Your task to perform on an android device: Go to notification settings Image 0: 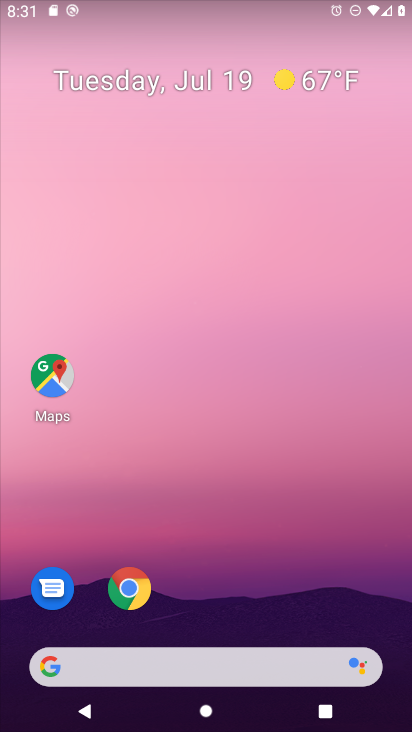
Step 0: drag from (321, 626) to (321, 157)
Your task to perform on an android device: Go to notification settings Image 1: 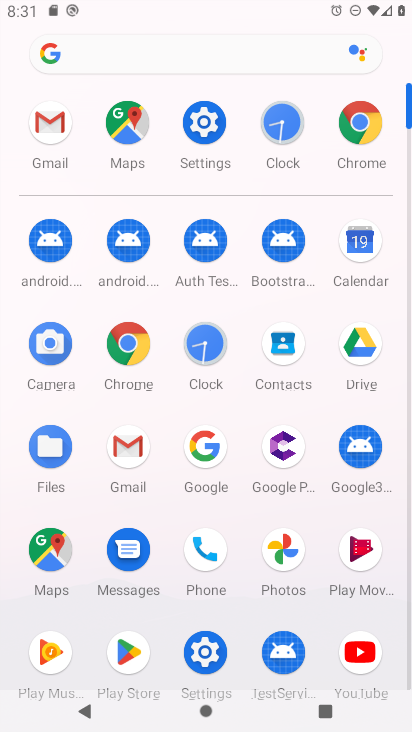
Step 1: click (214, 131)
Your task to perform on an android device: Go to notification settings Image 2: 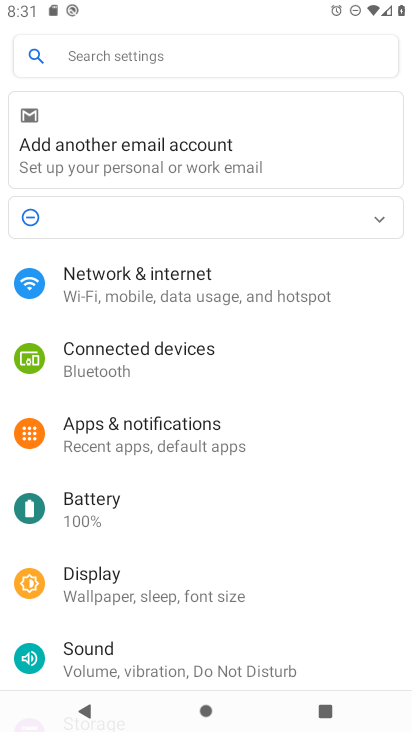
Step 2: drag from (335, 423) to (345, 345)
Your task to perform on an android device: Go to notification settings Image 3: 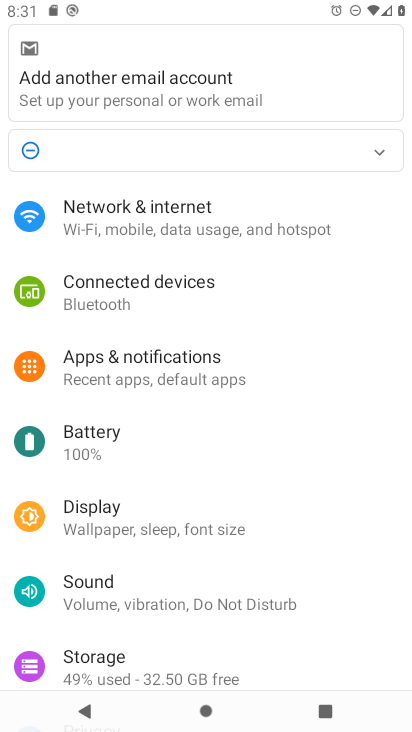
Step 3: drag from (353, 480) to (351, 395)
Your task to perform on an android device: Go to notification settings Image 4: 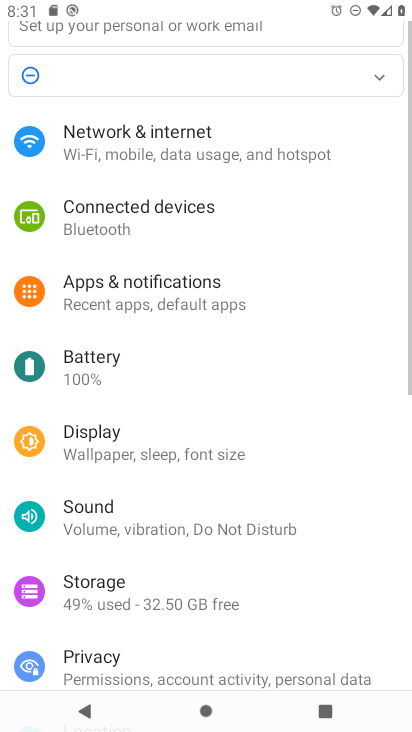
Step 4: drag from (342, 523) to (341, 422)
Your task to perform on an android device: Go to notification settings Image 5: 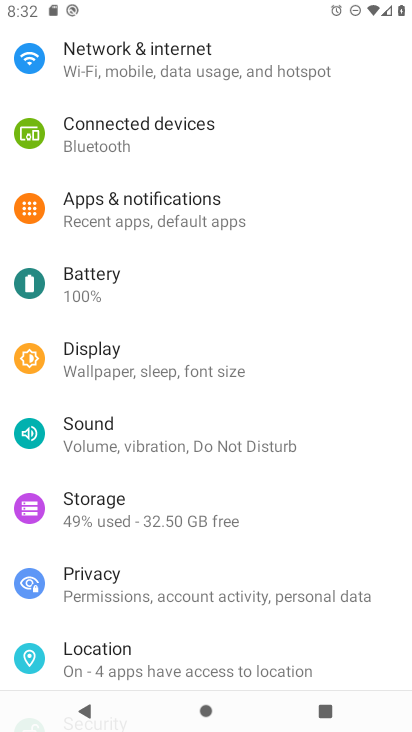
Step 5: drag from (336, 512) to (341, 419)
Your task to perform on an android device: Go to notification settings Image 6: 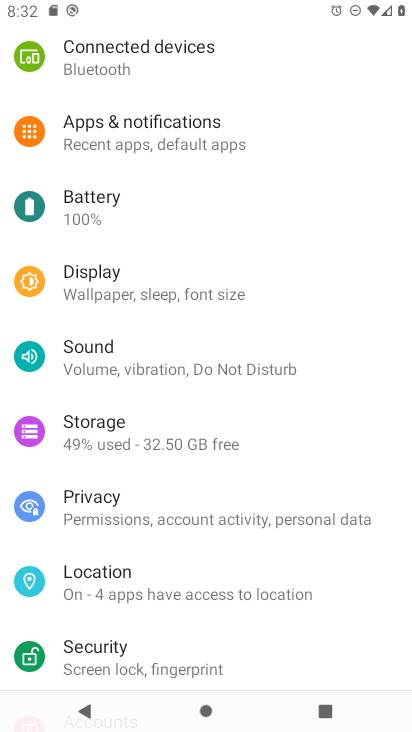
Step 6: drag from (343, 562) to (348, 442)
Your task to perform on an android device: Go to notification settings Image 7: 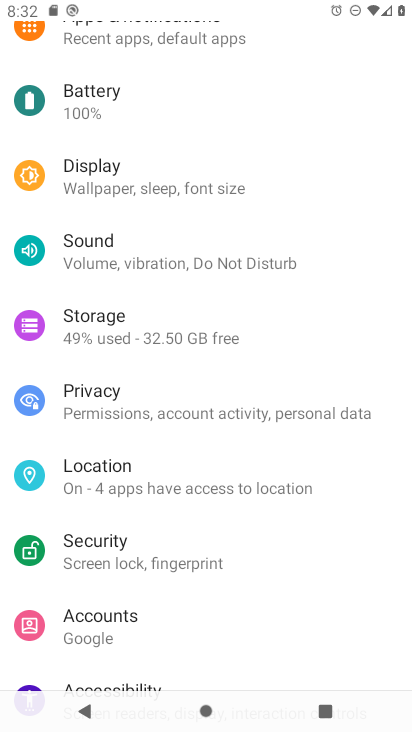
Step 7: drag from (336, 564) to (339, 458)
Your task to perform on an android device: Go to notification settings Image 8: 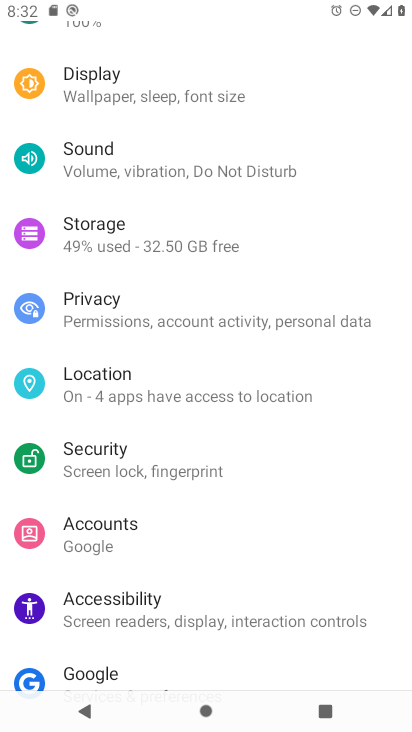
Step 8: drag from (364, 254) to (363, 369)
Your task to perform on an android device: Go to notification settings Image 9: 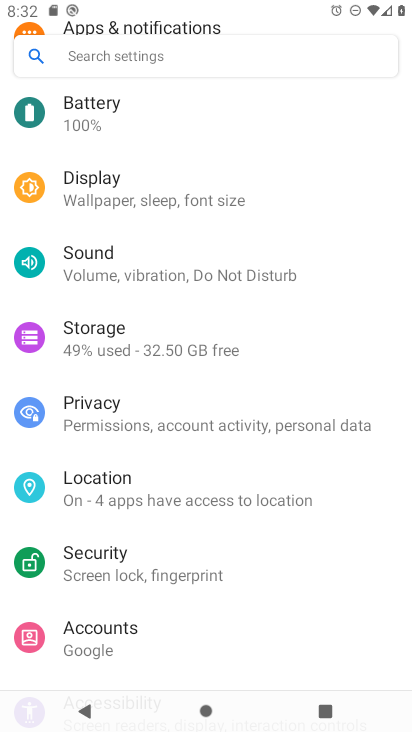
Step 9: drag from (368, 304) to (370, 433)
Your task to perform on an android device: Go to notification settings Image 10: 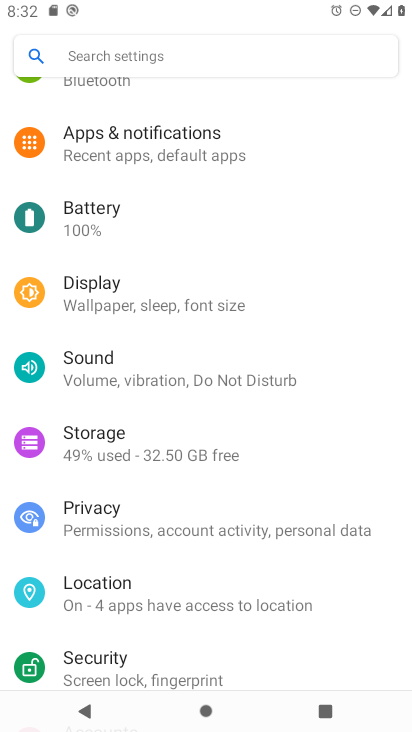
Step 10: drag from (368, 279) to (364, 395)
Your task to perform on an android device: Go to notification settings Image 11: 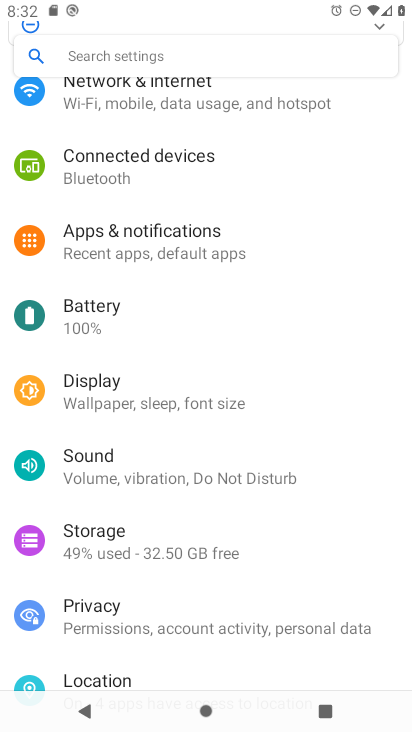
Step 11: drag from (354, 268) to (353, 395)
Your task to perform on an android device: Go to notification settings Image 12: 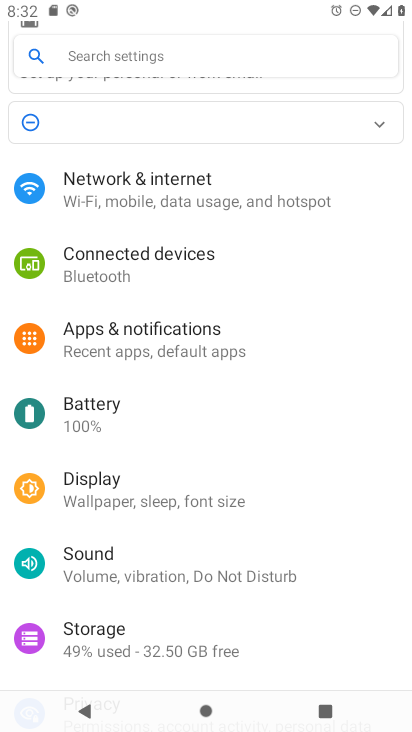
Step 12: click (297, 348)
Your task to perform on an android device: Go to notification settings Image 13: 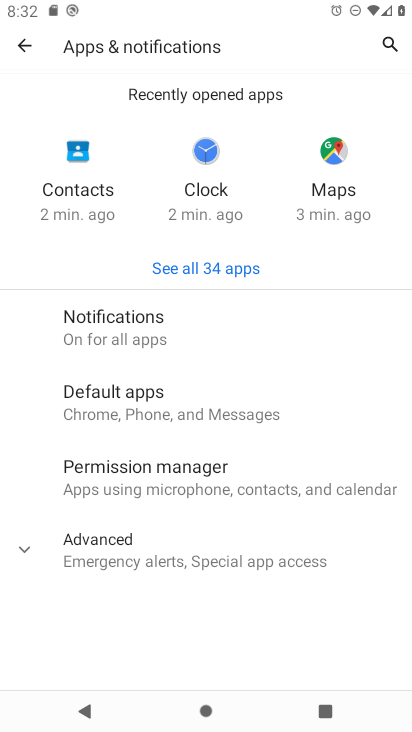
Step 13: click (250, 348)
Your task to perform on an android device: Go to notification settings Image 14: 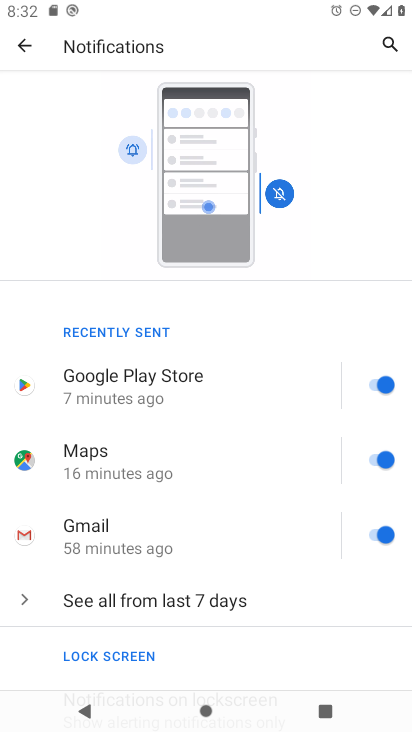
Step 14: task complete